Your task to perform on an android device: open app "Yahoo Mail" (install if not already installed) and enter user name: "lawsuit@inbox.com" and password: "pooch" Image 0: 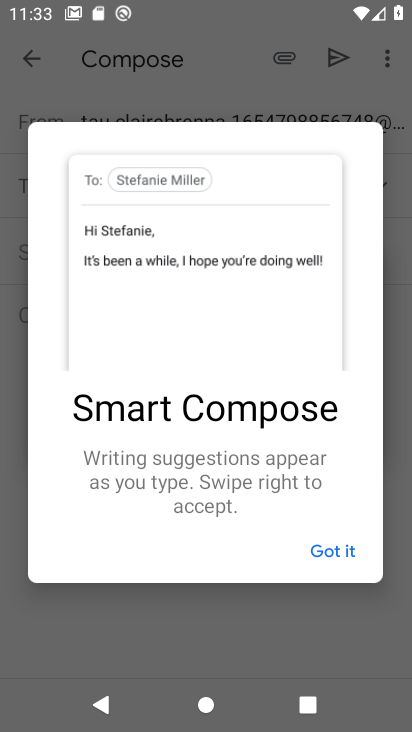
Step 0: press home button
Your task to perform on an android device: open app "Yahoo Mail" (install if not already installed) and enter user name: "lawsuit@inbox.com" and password: "pooch" Image 1: 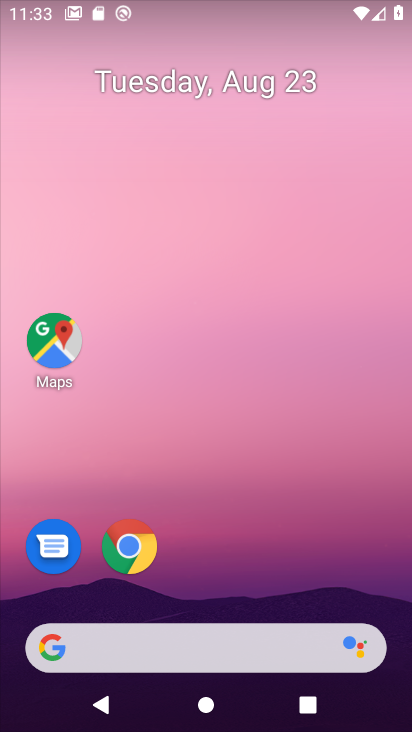
Step 1: drag from (207, 604) to (200, 196)
Your task to perform on an android device: open app "Yahoo Mail" (install if not already installed) and enter user name: "lawsuit@inbox.com" and password: "pooch" Image 2: 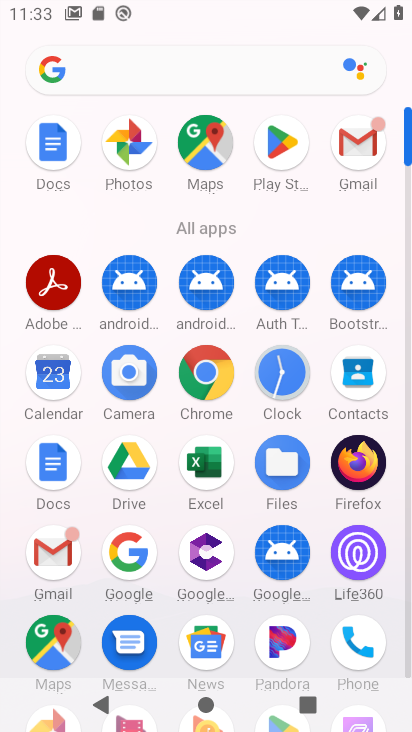
Step 2: click (283, 134)
Your task to perform on an android device: open app "Yahoo Mail" (install if not already installed) and enter user name: "lawsuit@inbox.com" and password: "pooch" Image 3: 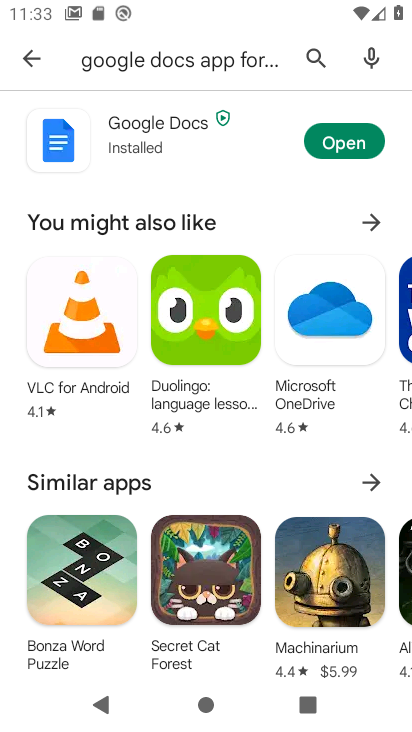
Step 3: click (42, 62)
Your task to perform on an android device: open app "Yahoo Mail" (install if not already installed) and enter user name: "lawsuit@inbox.com" and password: "pooch" Image 4: 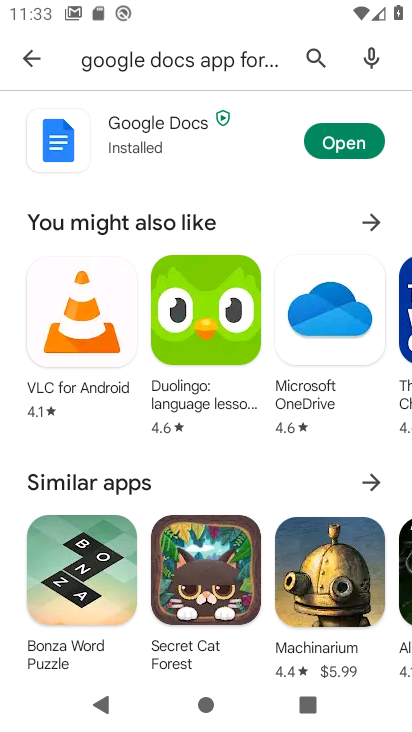
Step 4: click (303, 58)
Your task to perform on an android device: open app "Yahoo Mail" (install if not already installed) and enter user name: "lawsuit@inbox.com" and password: "pooch" Image 5: 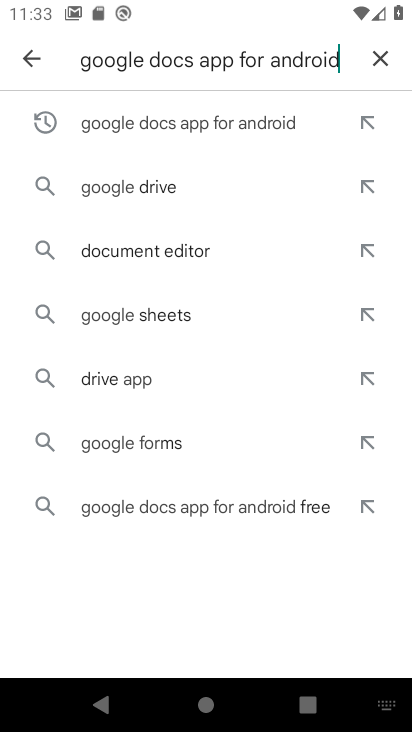
Step 5: click (379, 61)
Your task to perform on an android device: open app "Yahoo Mail" (install if not already installed) and enter user name: "lawsuit@inbox.com" and password: "pooch" Image 6: 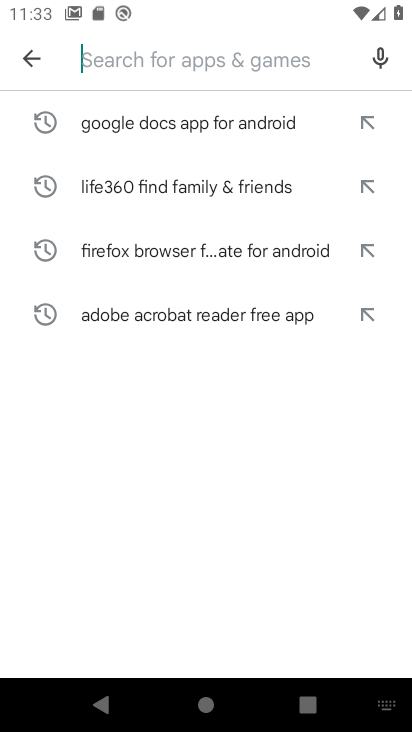
Step 6: click (159, 57)
Your task to perform on an android device: open app "Yahoo Mail" (install if not already installed) and enter user name: "lawsuit@inbox.com" and password: "pooch" Image 7: 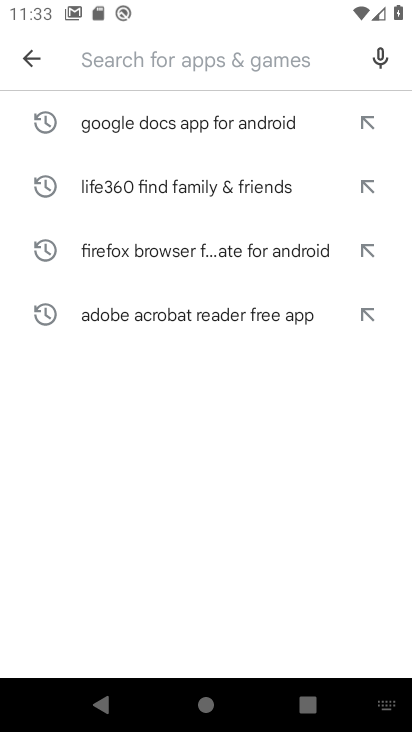
Step 7: type "Yahoo Mail "
Your task to perform on an android device: open app "Yahoo Mail" (install if not already installed) and enter user name: "lawsuit@inbox.com" and password: "pooch" Image 8: 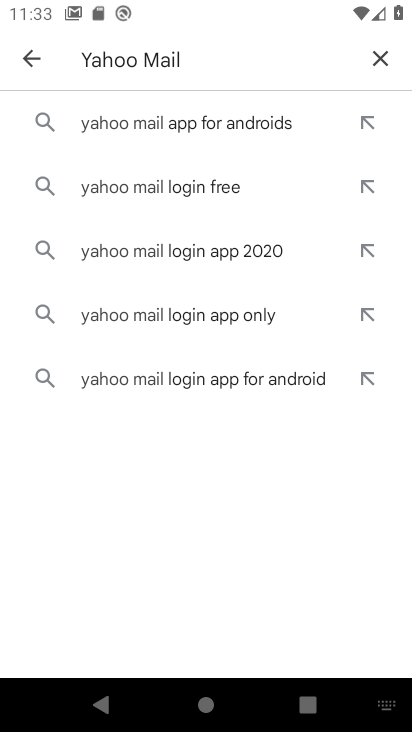
Step 8: click (157, 128)
Your task to perform on an android device: open app "Yahoo Mail" (install if not already installed) and enter user name: "lawsuit@inbox.com" and password: "pooch" Image 9: 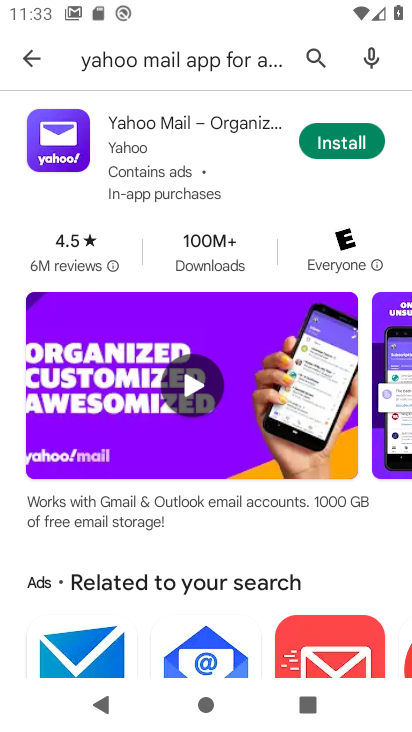
Step 9: click (351, 138)
Your task to perform on an android device: open app "Yahoo Mail" (install if not already installed) and enter user name: "lawsuit@inbox.com" and password: "pooch" Image 10: 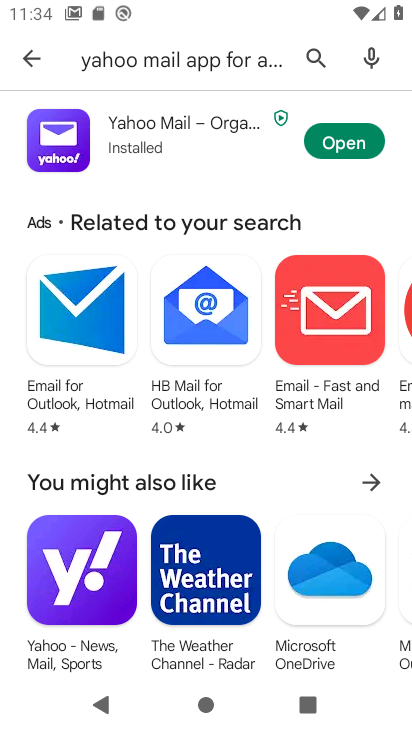
Step 10: task complete